Your task to perform on an android device: turn vacation reply on in the gmail app Image 0: 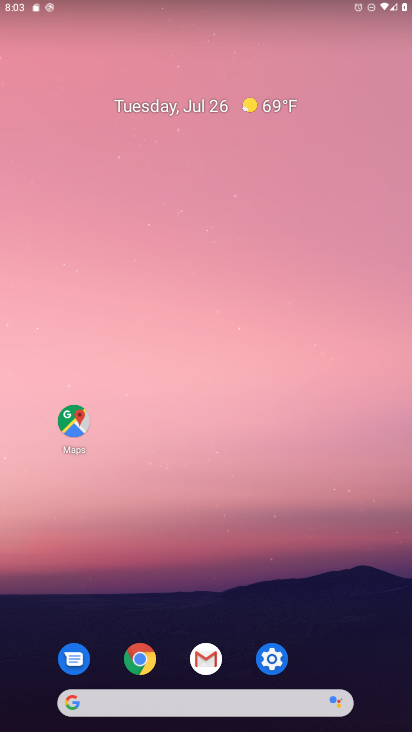
Step 0: click (213, 652)
Your task to perform on an android device: turn vacation reply on in the gmail app Image 1: 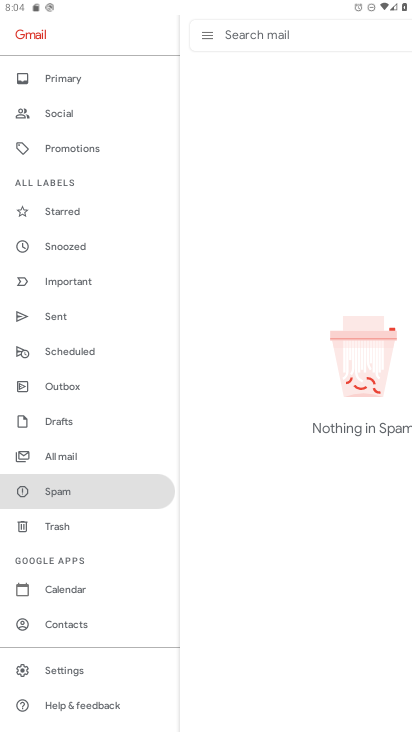
Step 1: click (67, 666)
Your task to perform on an android device: turn vacation reply on in the gmail app Image 2: 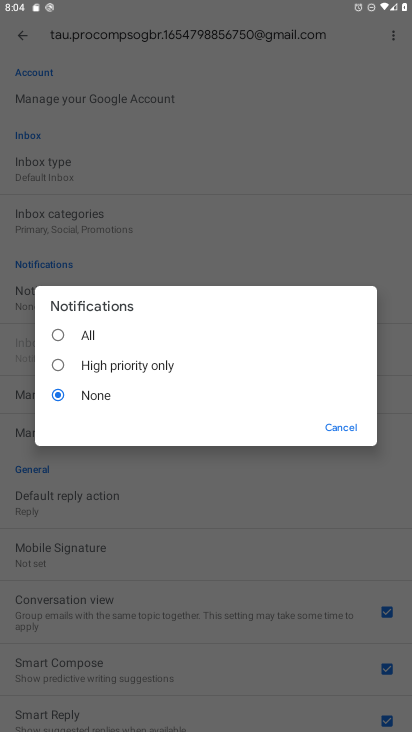
Step 2: click (155, 565)
Your task to perform on an android device: turn vacation reply on in the gmail app Image 3: 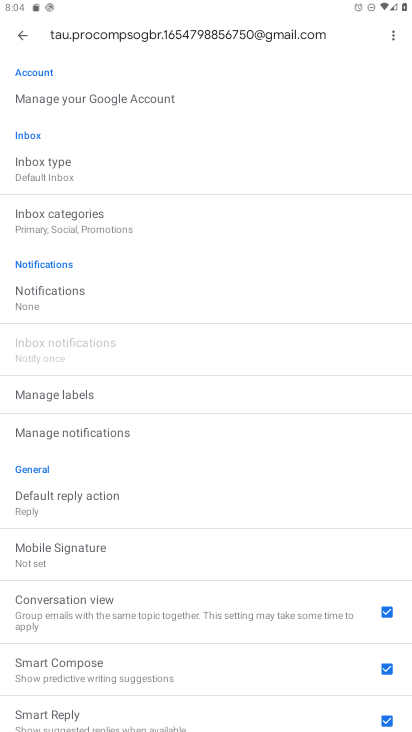
Step 3: drag from (175, 552) to (221, 261)
Your task to perform on an android device: turn vacation reply on in the gmail app Image 4: 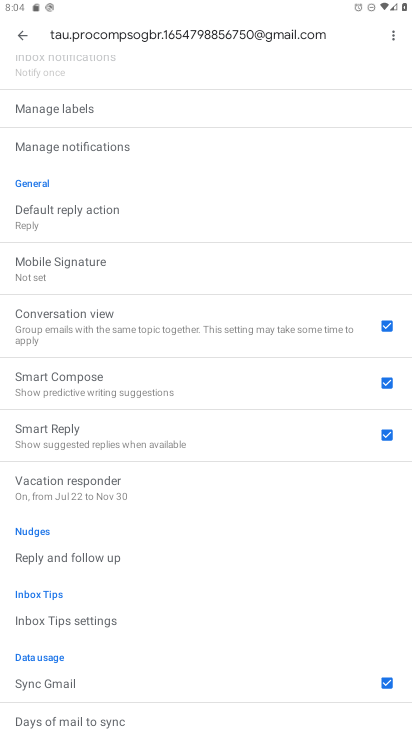
Step 4: click (162, 558)
Your task to perform on an android device: turn vacation reply on in the gmail app Image 5: 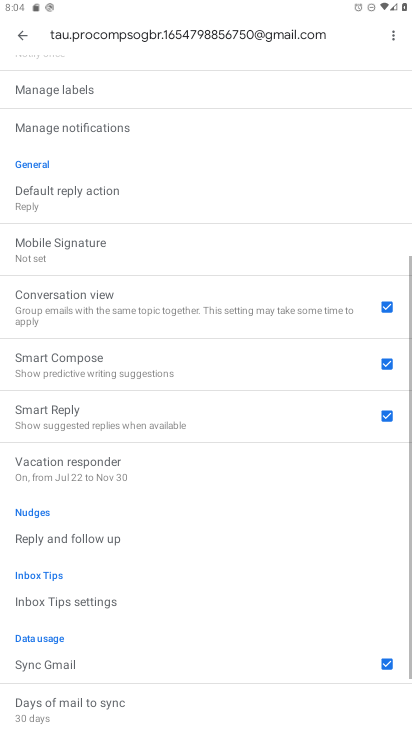
Step 5: click (149, 468)
Your task to perform on an android device: turn vacation reply on in the gmail app Image 6: 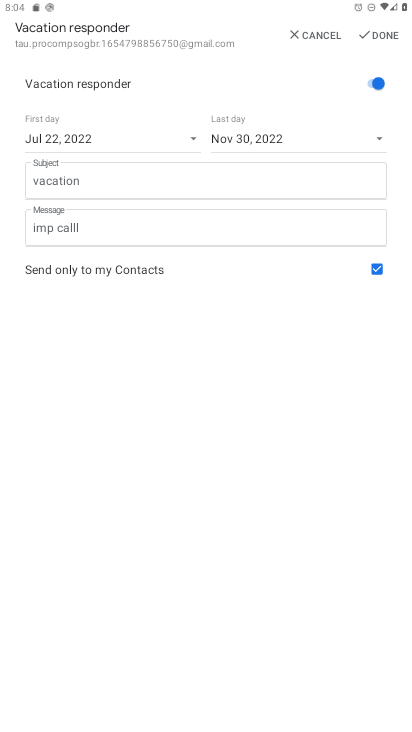
Step 6: task complete